Your task to perform on an android device: Search for pizza restaurants on Maps Image 0: 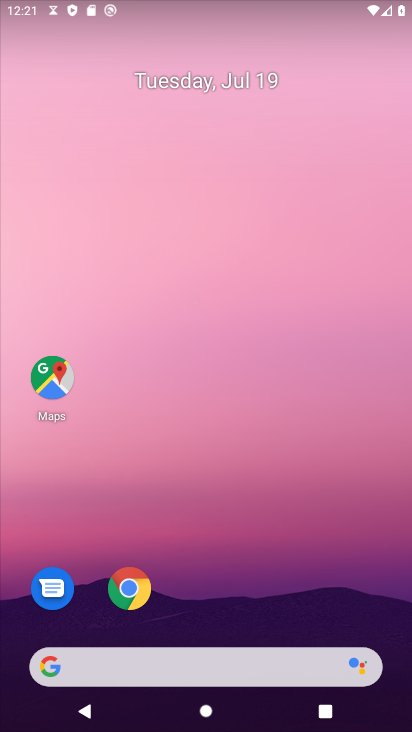
Step 0: click (49, 387)
Your task to perform on an android device: Search for pizza restaurants on Maps Image 1: 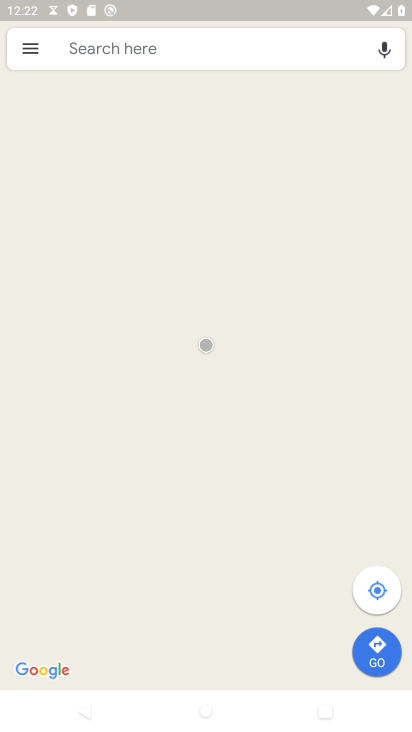
Step 1: click (133, 53)
Your task to perform on an android device: Search for pizza restaurants on Maps Image 2: 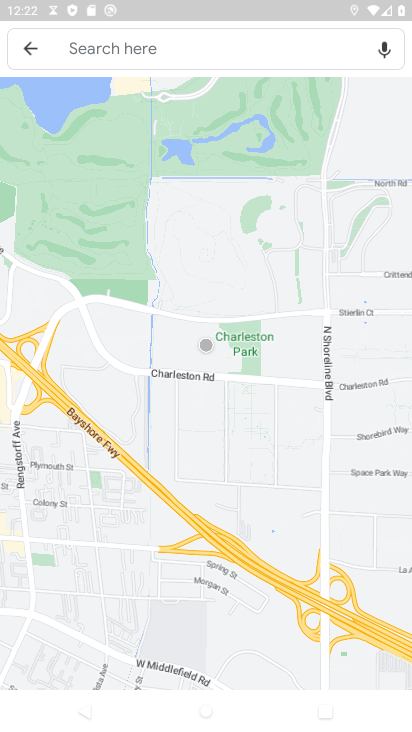
Step 2: click (175, 56)
Your task to perform on an android device: Search for pizza restaurants on Maps Image 3: 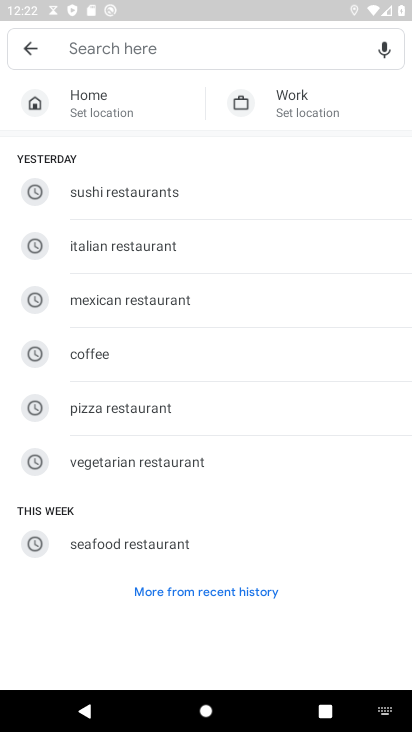
Step 3: click (154, 413)
Your task to perform on an android device: Search for pizza restaurants on Maps Image 4: 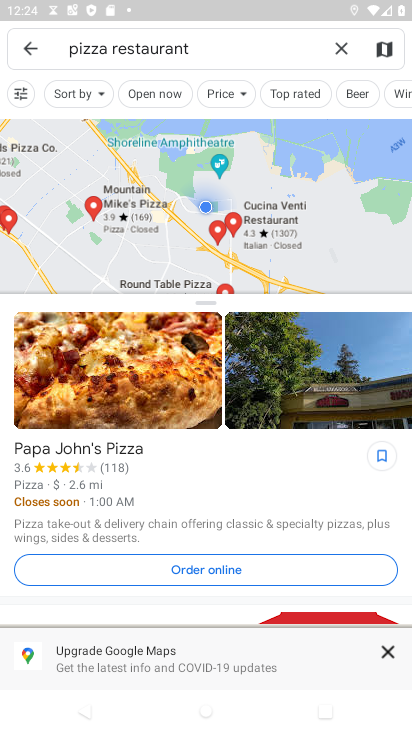
Step 4: task complete